Your task to perform on an android device: turn off sleep mode Image 0: 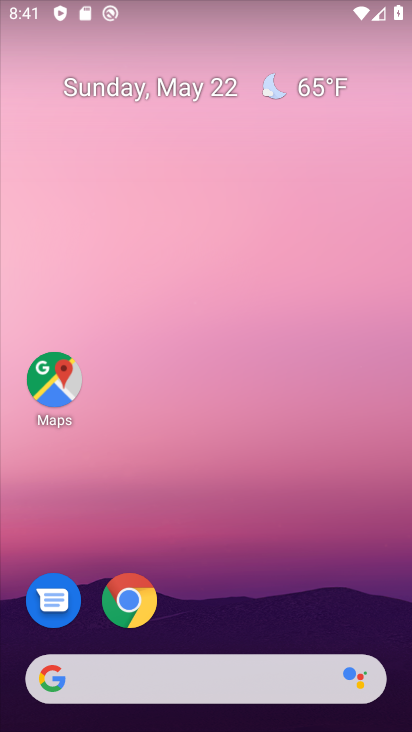
Step 0: drag from (219, 600) to (215, 99)
Your task to perform on an android device: turn off sleep mode Image 1: 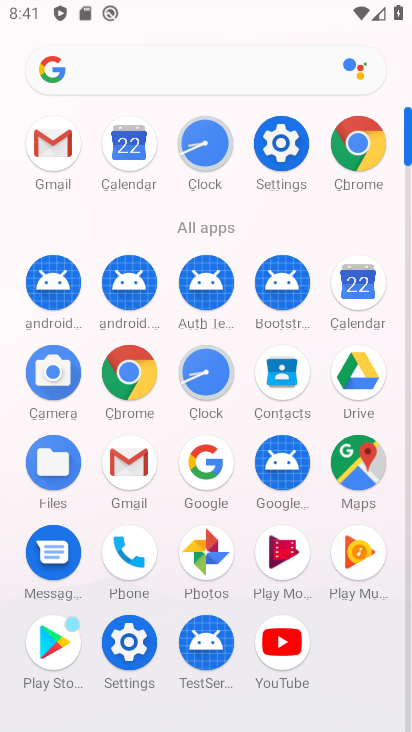
Step 1: task complete